Your task to perform on an android device: Open Google Maps and go to "Timeline" Image 0: 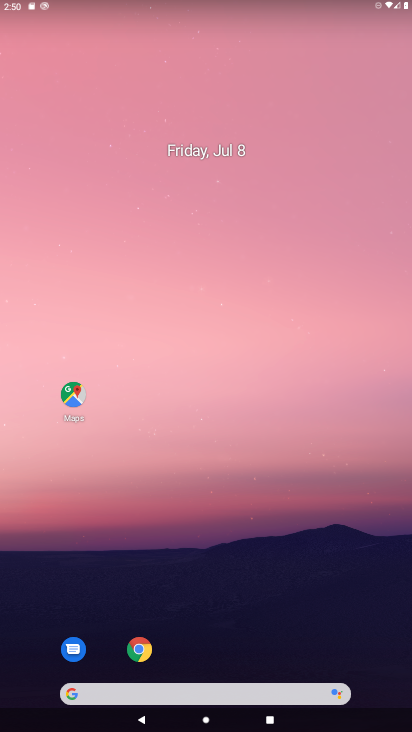
Step 0: click (73, 395)
Your task to perform on an android device: Open Google Maps and go to "Timeline" Image 1: 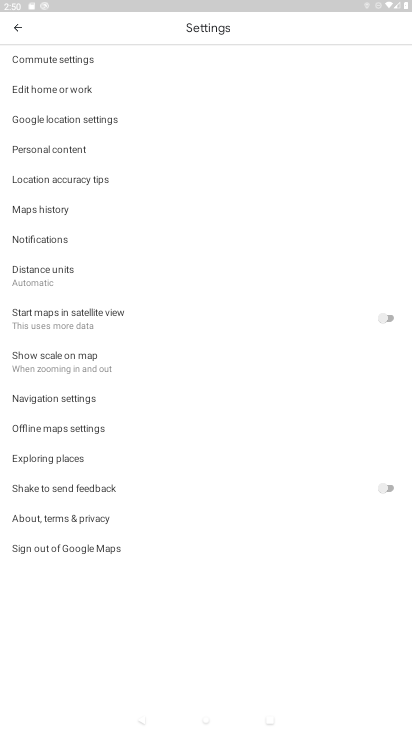
Step 1: press back button
Your task to perform on an android device: Open Google Maps and go to "Timeline" Image 2: 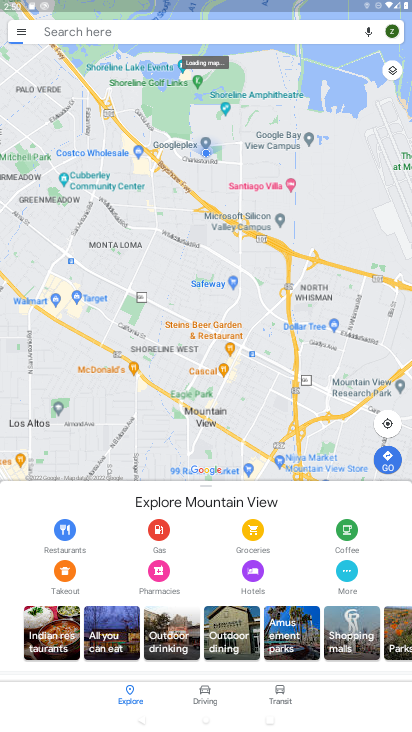
Step 2: click (16, 30)
Your task to perform on an android device: Open Google Maps and go to "Timeline" Image 3: 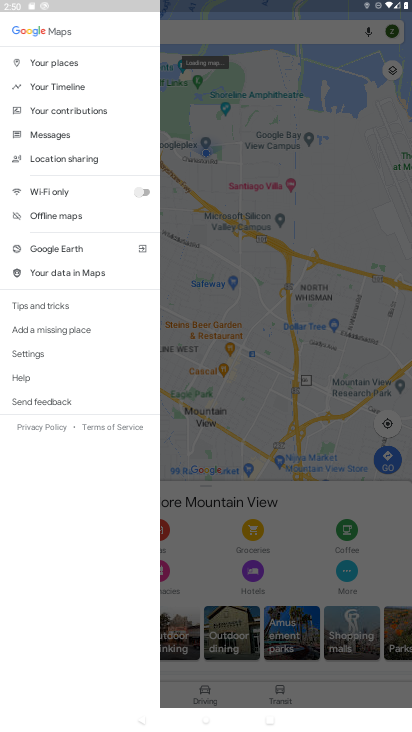
Step 3: click (49, 83)
Your task to perform on an android device: Open Google Maps and go to "Timeline" Image 4: 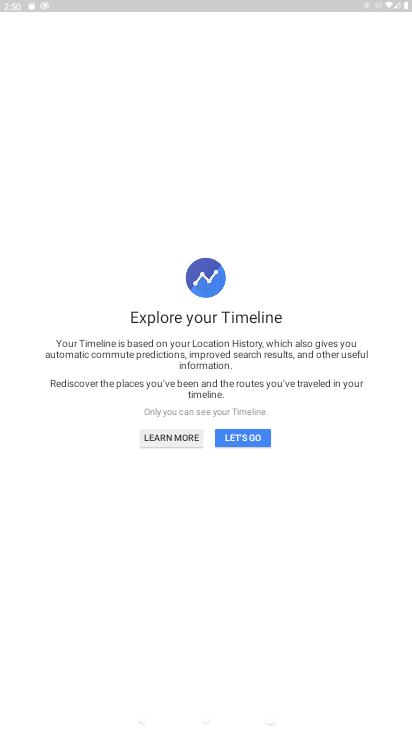
Step 4: click (250, 437)
Your task to perform on an android device: Open Google Maps and go to "Timeline" Image 5: 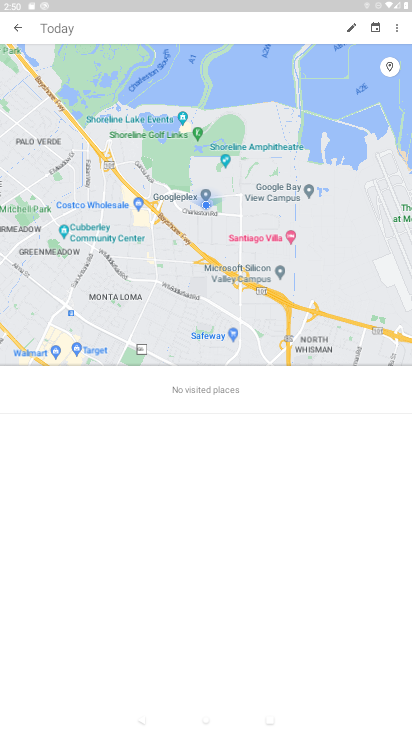
Step 5: task complete